Your task to perform on an android device: turn off wifi Image 0: 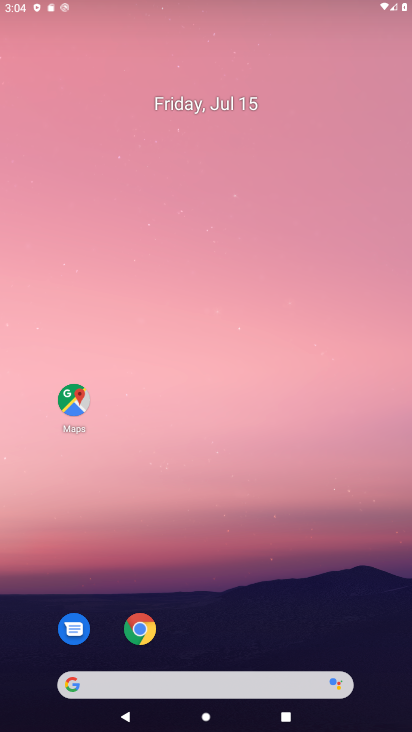
Step 0: drag from (4, 194) to (404, 380)
Your task to perform on an android device: turn off wifi Image 1: 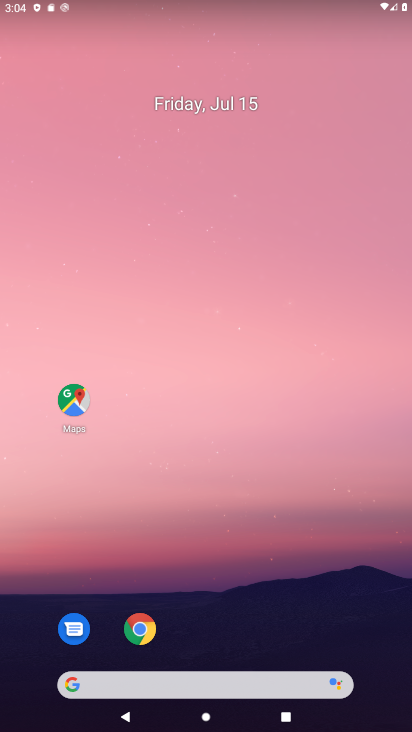
Step 1: task complete